Your task to perform on an android device: empty trash in the gmail app Image 0: 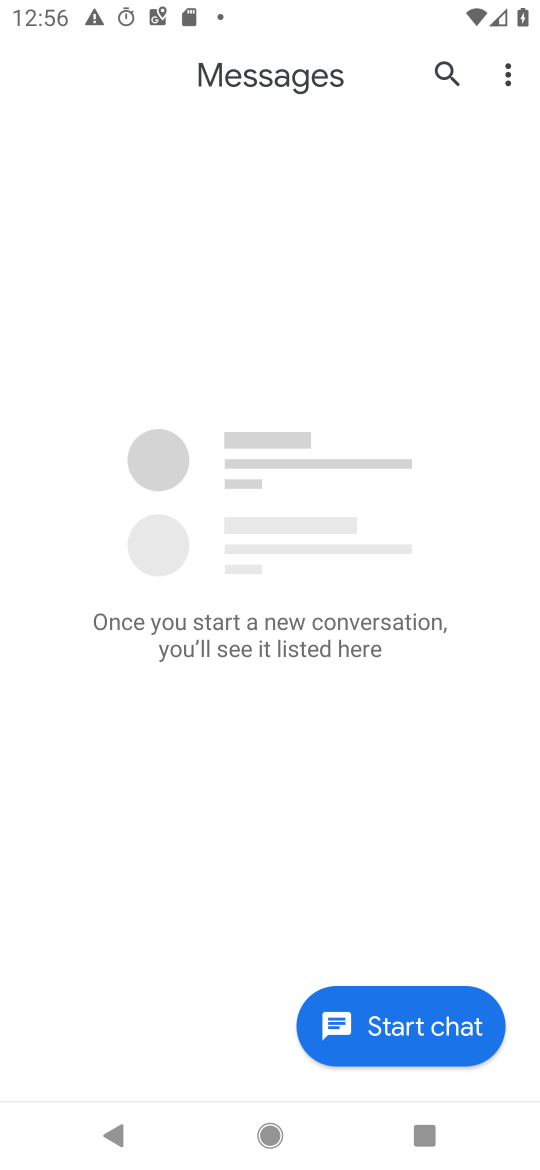
Step 0: press home button
Your task to perform on an android device: empty trash in the gmail app Image 1: 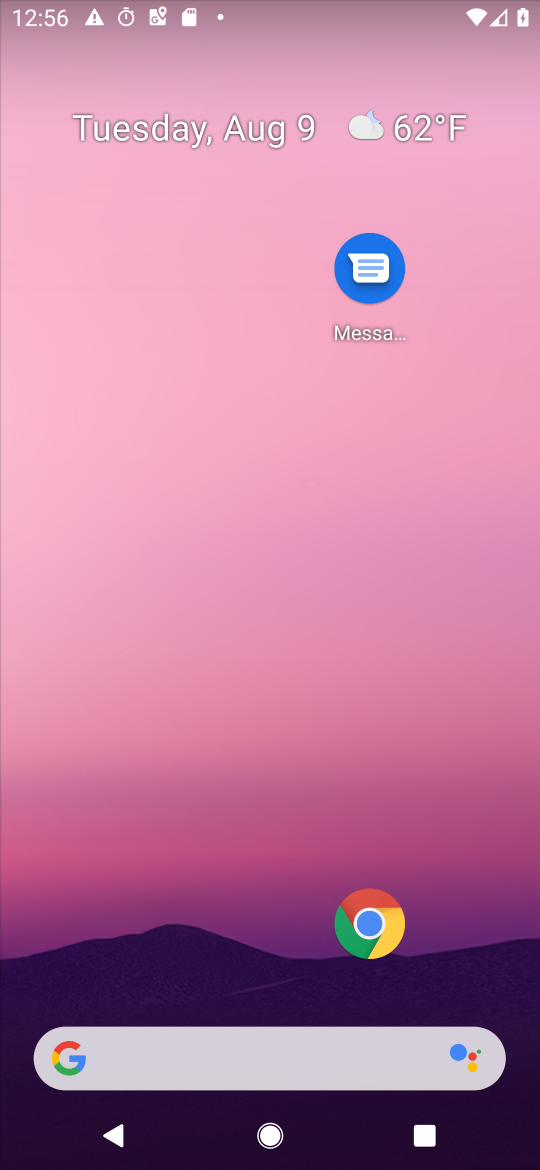
Step 1: task complete